Your task to perform on an android device: Go to CNN.com Image 0: 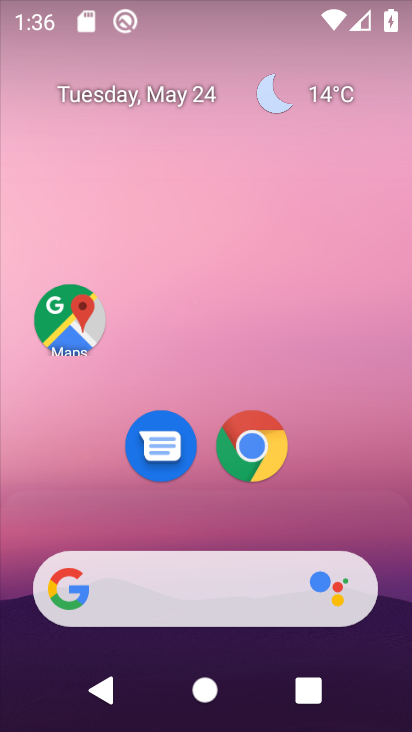
Step 0: click (208, 597)
Your task to perform on an android device: Go to CNN.com Image 1: 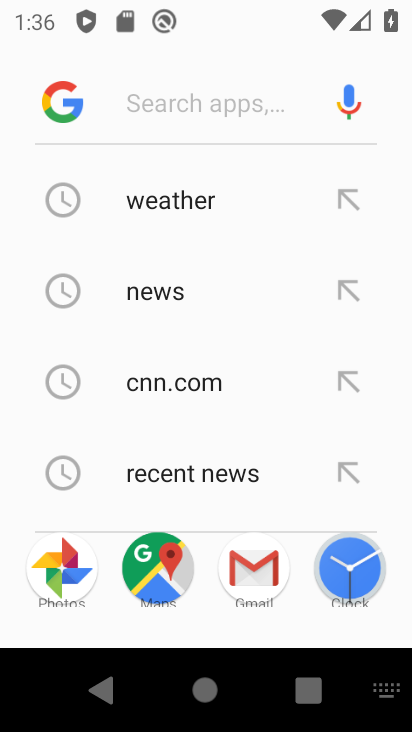
Step 1: type "CNN.com"
Your task to perform on an android device: Go to CNN.com Image 2: 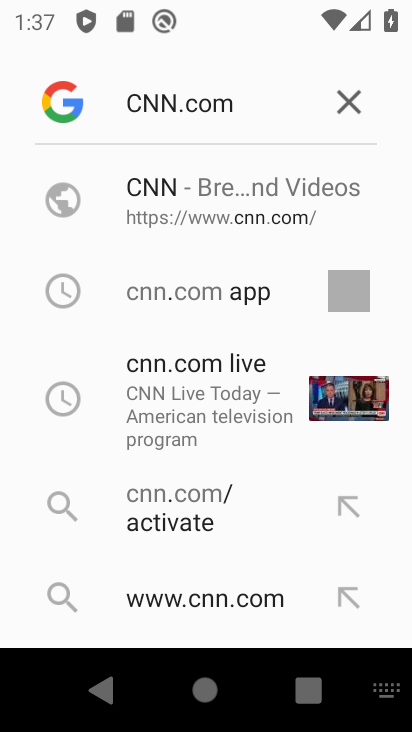
Step 2: click (182, 220)
Your task to perform on an android device: Go to CNN.com Image 3: 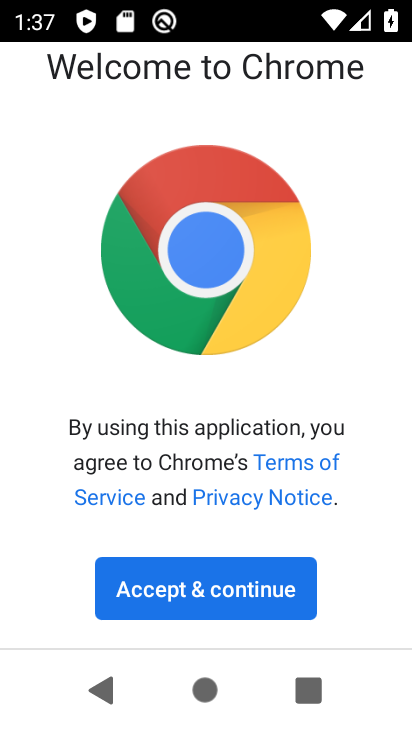
Step 3: click (204, 581)
Your task to perform on an android device: Go to CNN.com Image 4: 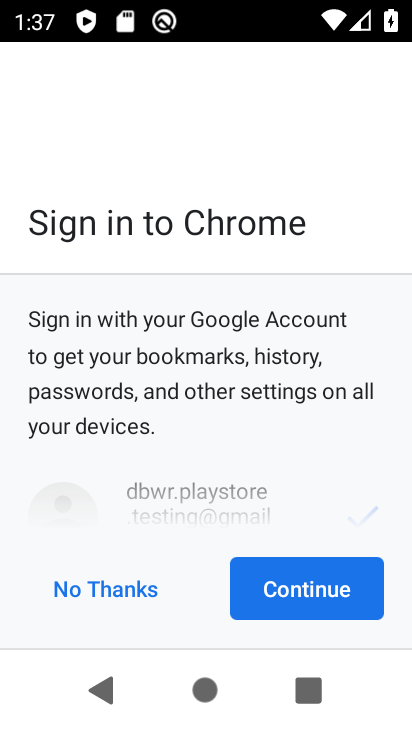
Step 4: click (273, 599)
Your task to perform on an android device: Go to CNN.com Image 5: 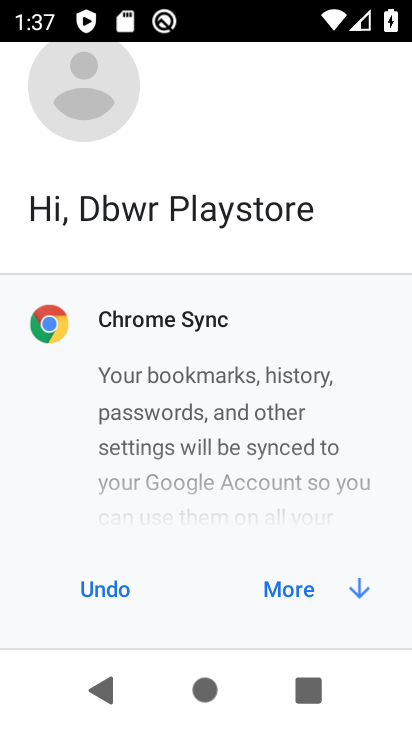
Step 5: click (284, 602)
Your task to perform on an android device: Go to CNN.com Image 6: 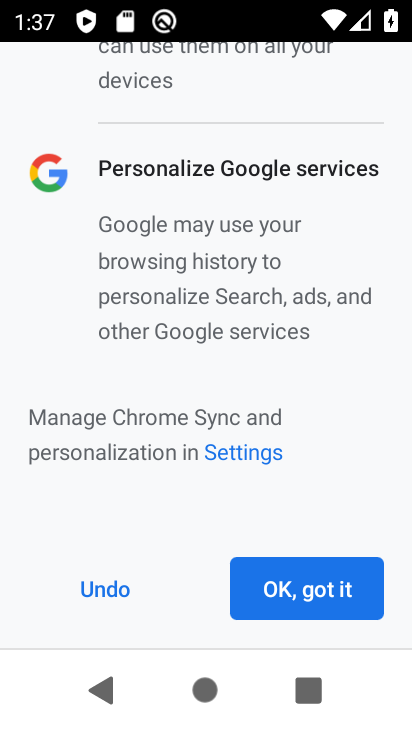
Step 6: click (342, 602)
Your task to perform on an android device: Go to CNN.com Image 7: 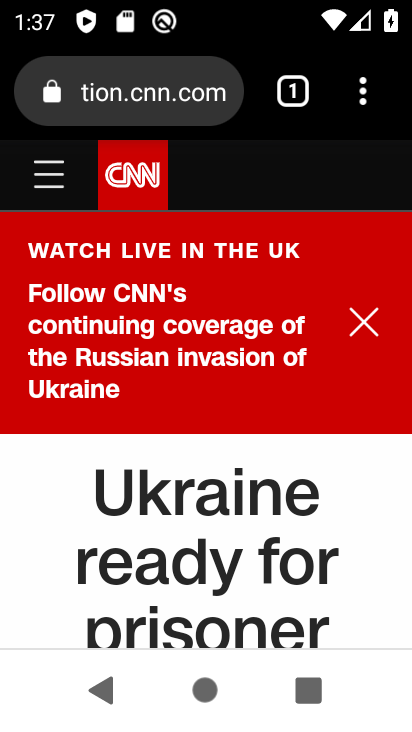
Step 7: click (364, 339)
Your task to perform on an android device: Go to CNN.com Image 8: 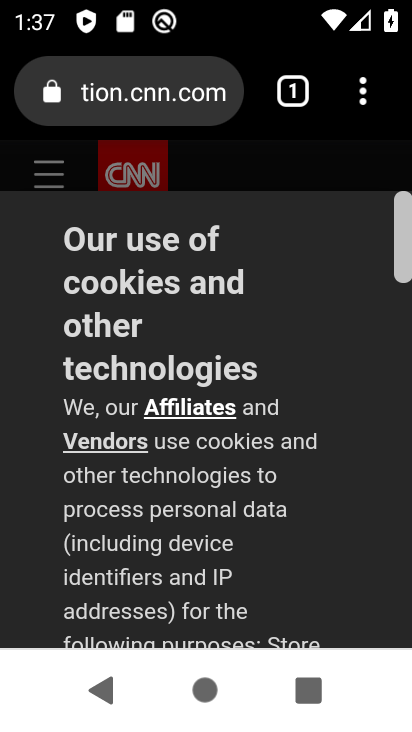
Step 8: drag from (154, 568) to (275, 192)
Your task to perform on an android device: Go to CNN.com Image 9: 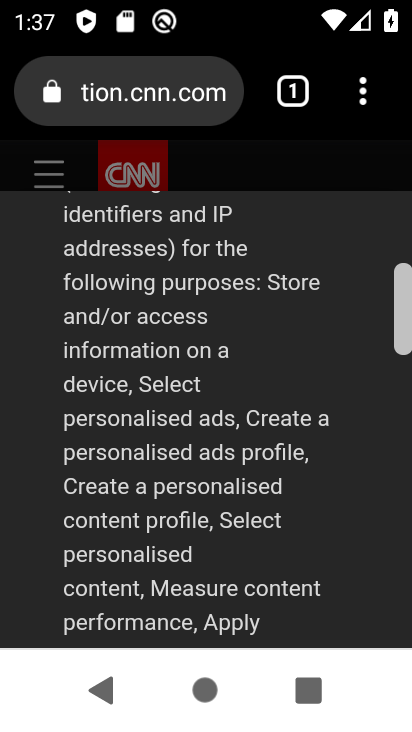
Step 9: drag from (244, 537) to (334, 155)
Your task to perform on an android device: Go to CNN.com Image 10: 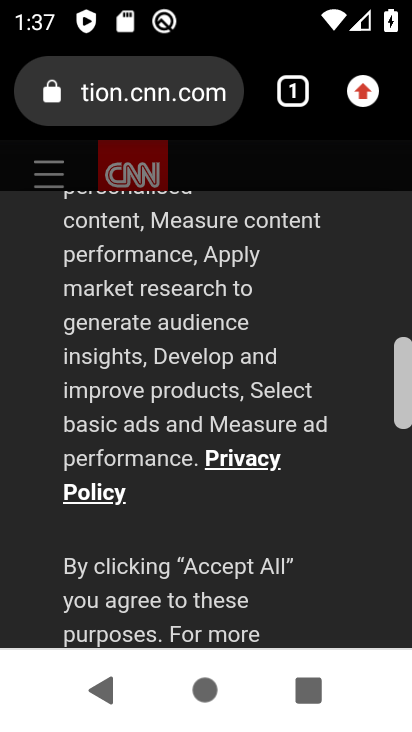
Step 10: drag from (196, 597) to (288, 163)
Your task to perform on an android device: Go to CNN.com Image 11: 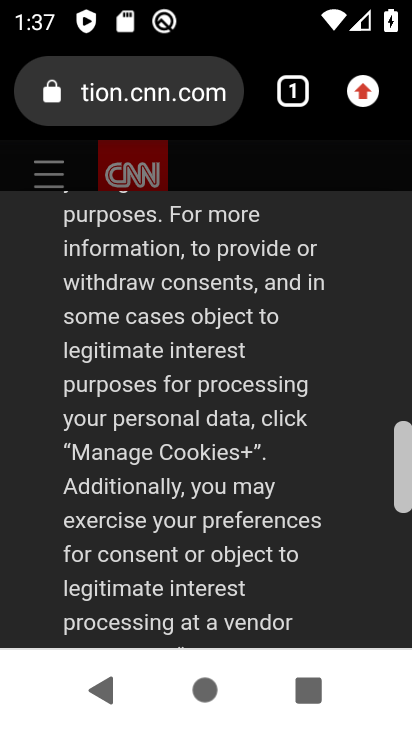
Step 11: drag from (207, 603) to (313, 166)
Your task to perform on an android device: Go to CNN.com Image 12: 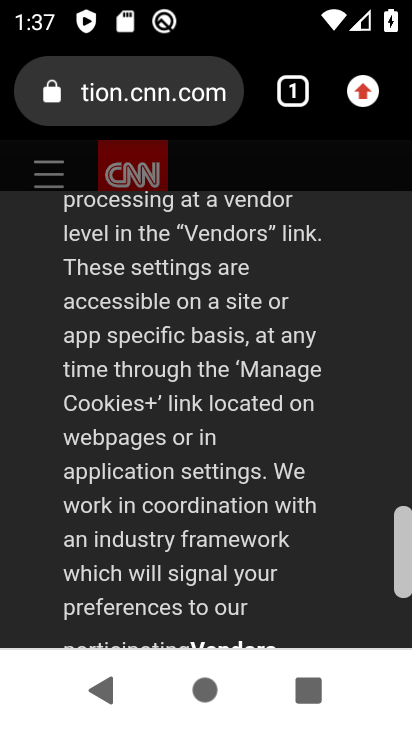
Step 12: drag from (190, 636) to (302, 98)
Your task to perform on an android device: Go to CNN.com Image 13: 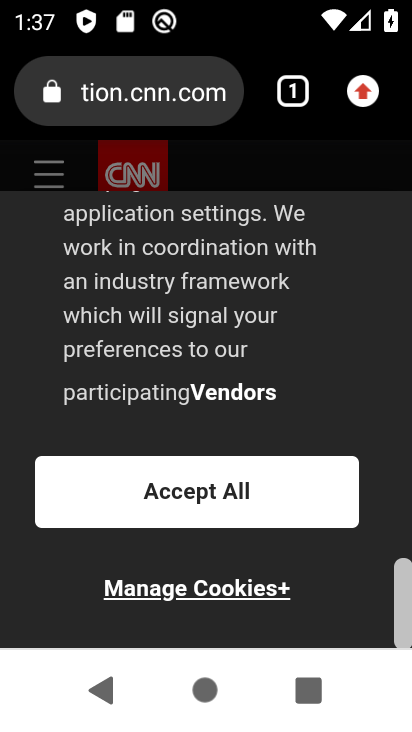
Step 13: click (210, 509)
Your task to perform on an android device: Go to CNN.com Image 14: 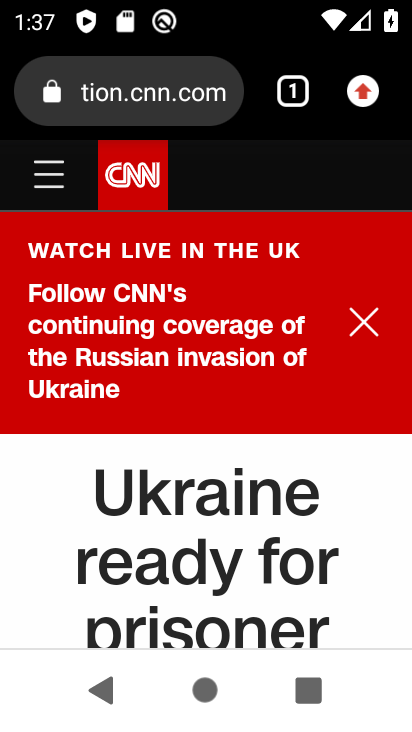
Step 14: click (366, 318)
Your task to perform on an android device: Go to CNN.com Image 15: 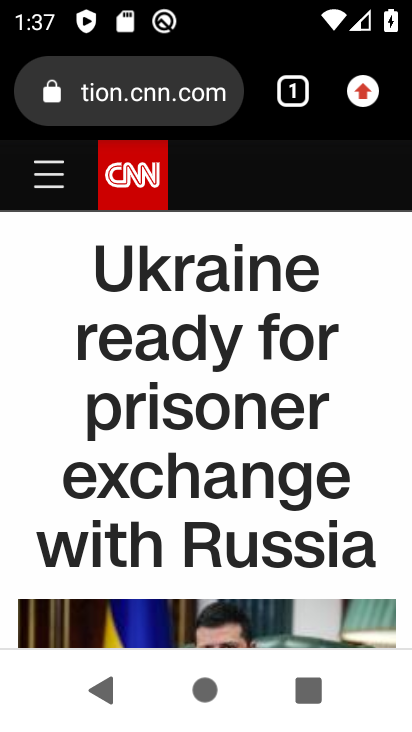
Step 15: task complete